Your task to perform on an android device: Play the last video I watched on Youtube Image 0: 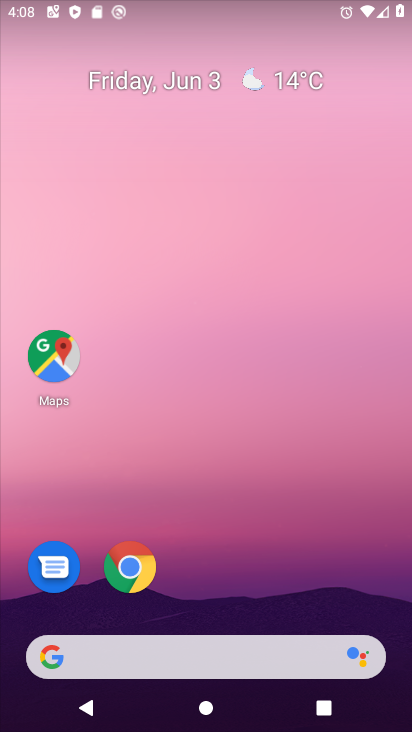
Step 0: drag from (297, 670) to (260, 99)
Your task to perform on an android device: Play the last video I watched on Youtube Image 1: 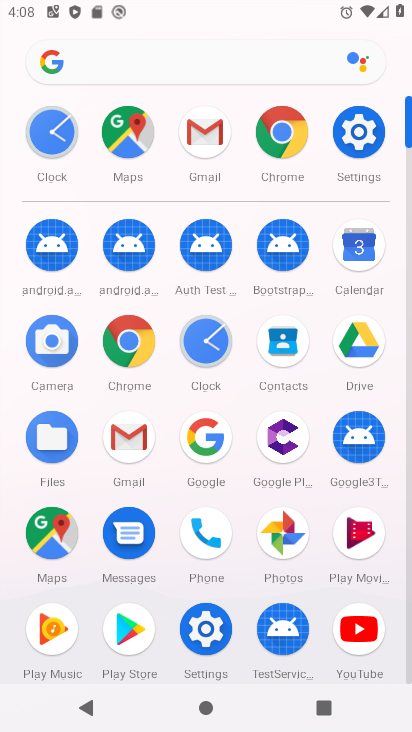
Step 1: click (367, 638)
Your task to perform on an android device: Play the last video I watched on Youtube Image 2: 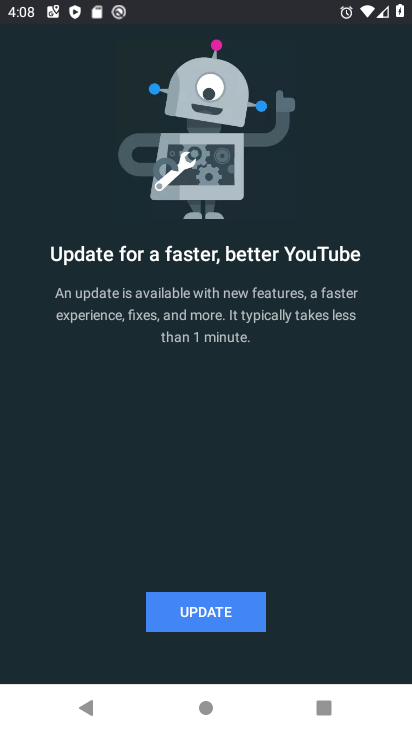
Step 2: click (246, 625)
Your task to perform on an android device: Play the last video I watched on Youtube Image 3: 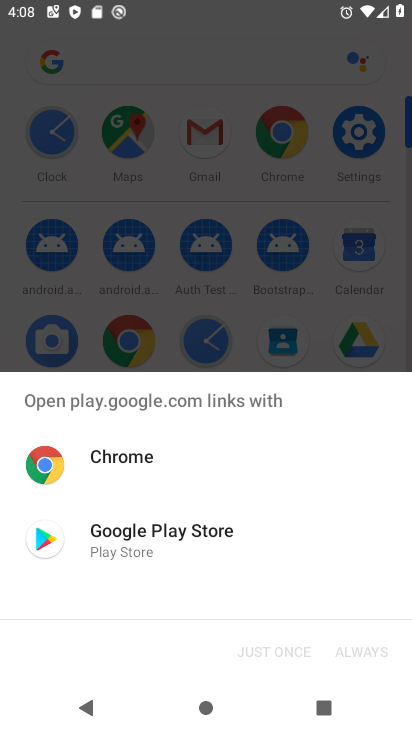
Step 3: click (169, 536)
Your task to perform on an android device: Play the last video I watched on Youtube Image 4: 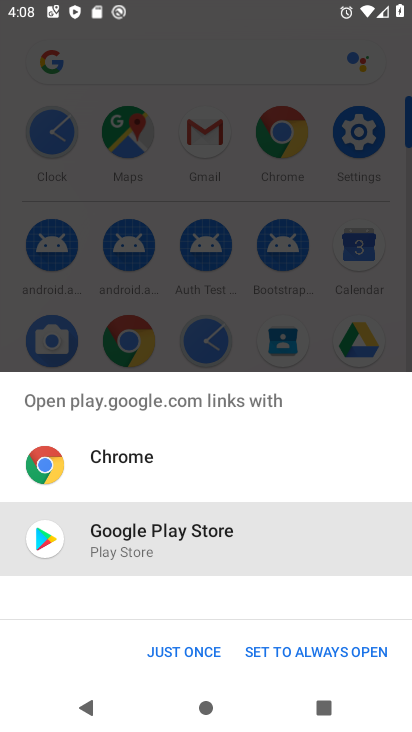
Step 4: click (211, 648)
Your task to perform on an android device: Play the last video I watched on Youtube Image 5: 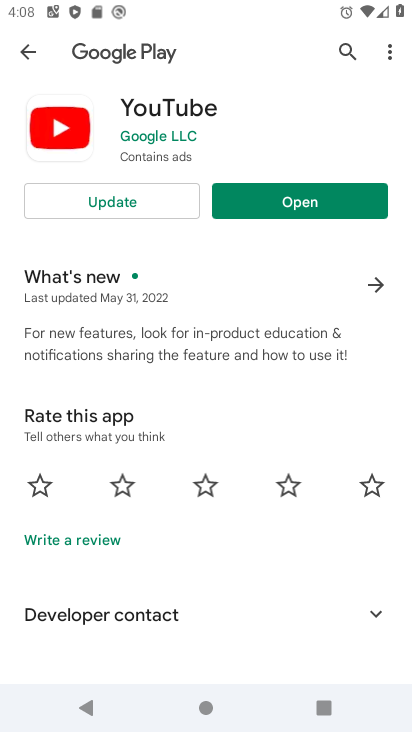
Step 5: drag from (277, 198) to (184, 371)
Your task to perform on an android device: Play the last video I watched on Youtube Image 6: 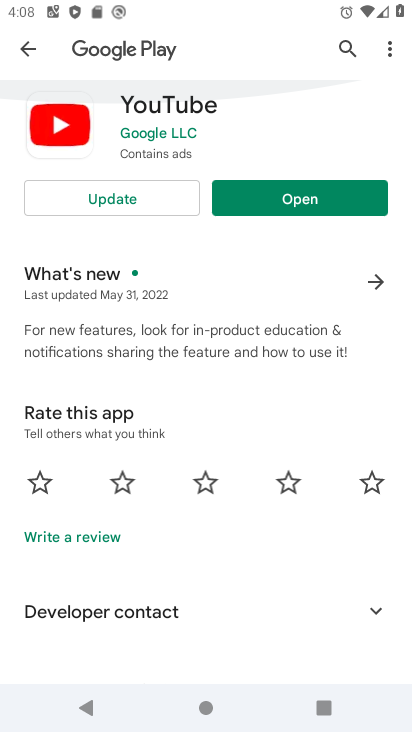
Step 6: click (134, 208)
Your task to perform on an android device: Play the last video I watched on Youtube Image 7: 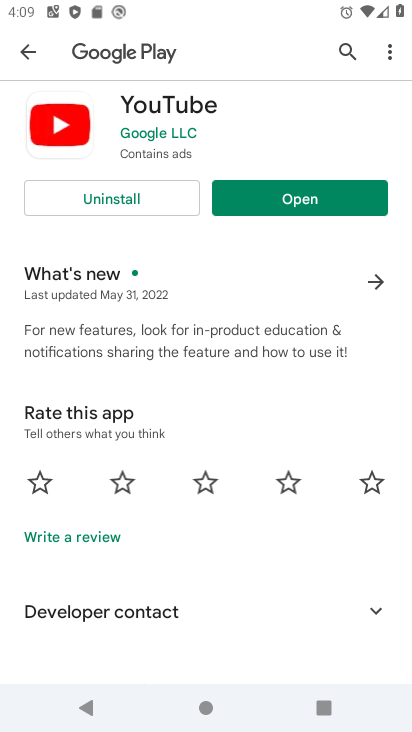
Step 7: click (310, 208)
Your task to perform on an android device: Play the last video I watched on Youtube Image 8: 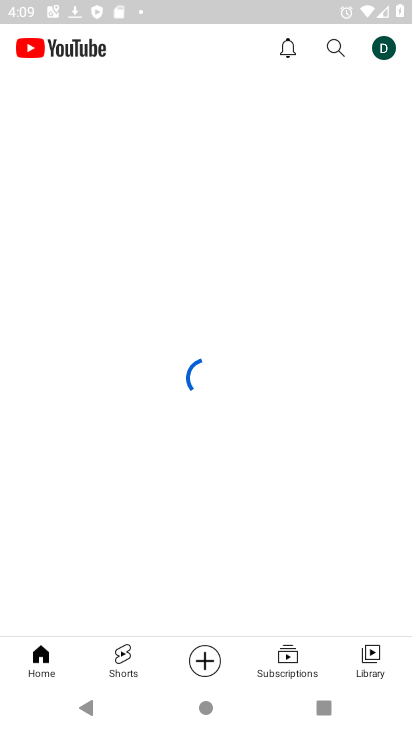
Step 8: click (347, 659)
Your task to perform on an android device: Play the last video I watched on Youtube Image 9: 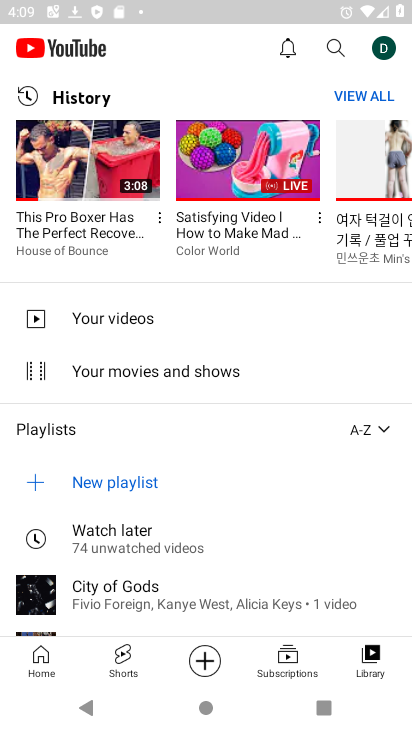
Step 9: click (94, 193)
Your task to perform on an android device: Play the last video I watched on Youtube Image 10: 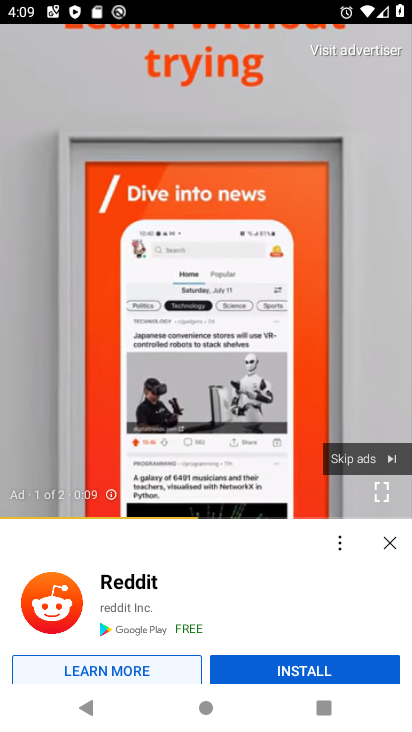
Step 10: task complete